Your task to perform on an android device: Do I have any events this weekend? Image 0: 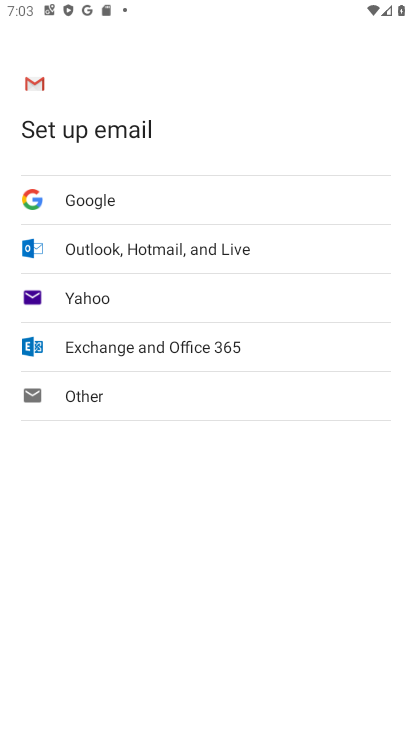
Step 0: press home button
Your task to perform on an android device: Do I have any events this weekend? Image 1: 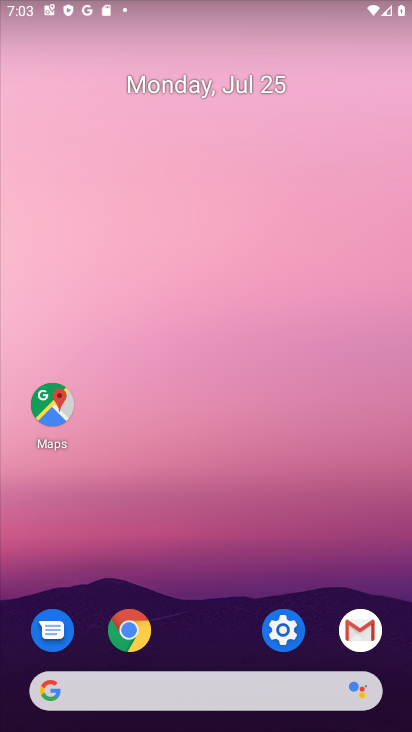
Step 1: drag from (229, 718) to (271, 132)
Your task to perform on an android device: Do I have any events this weekend? Image 2: 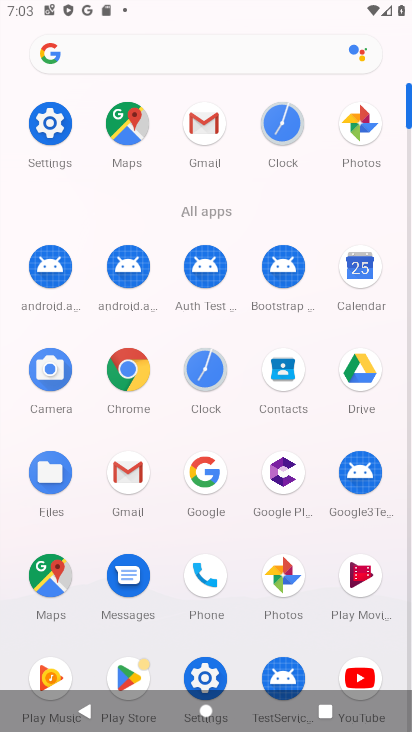
Step 2: click (349, 277)
Your task to perform on an android device: Do I have any events this weekend? Image 3: 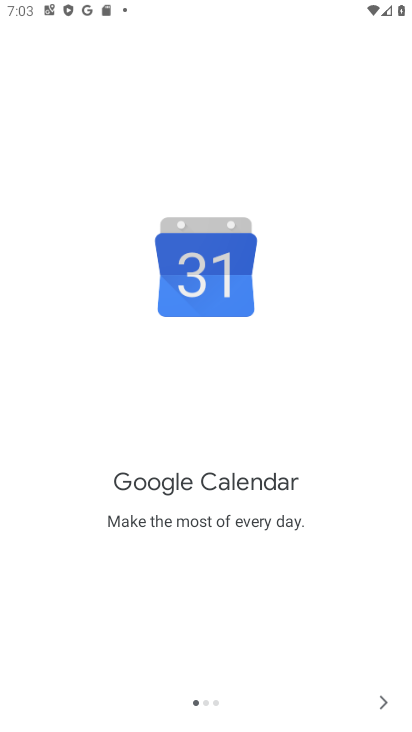
Step 3: click (367, 700)
Your task to perform on an android device: Do I have any events this weekend? Image 4: 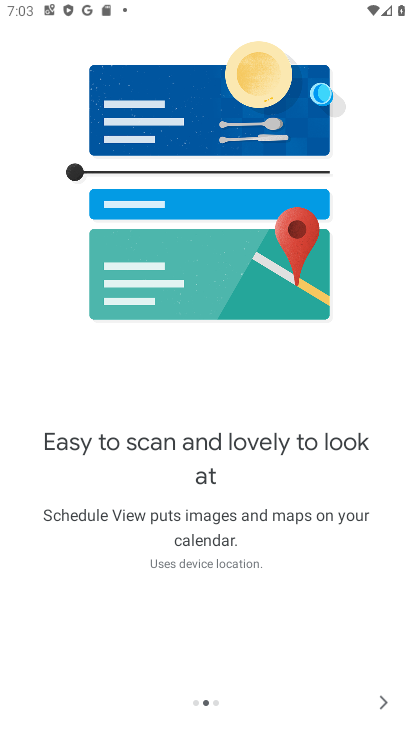
Step 4: click (367, 700)
Your task to perform on an android device: Do I have any events this weekend? Image 5: 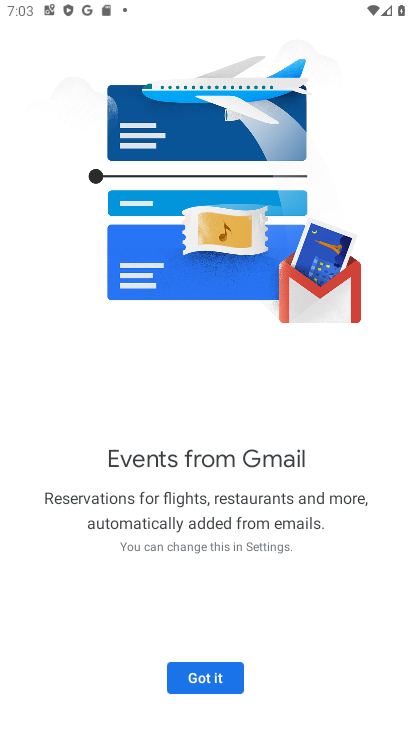
Step 5: click (193, 680)
Your task to perform on an android device: Do I have any events this weekend? Image 6: 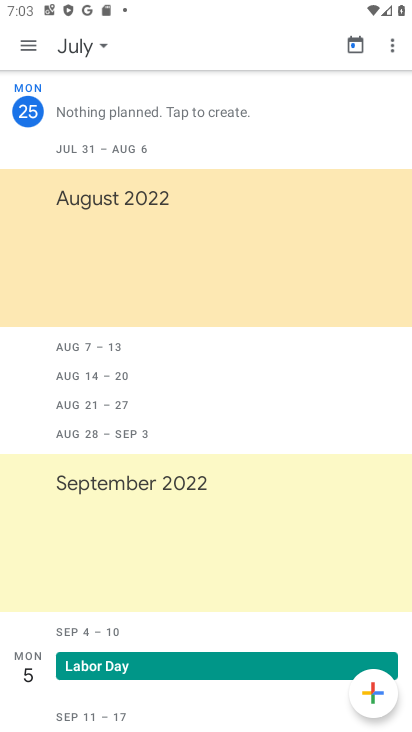
Step 6: task complete